Your task to perform on an android device: toggle notification dots Image 0: 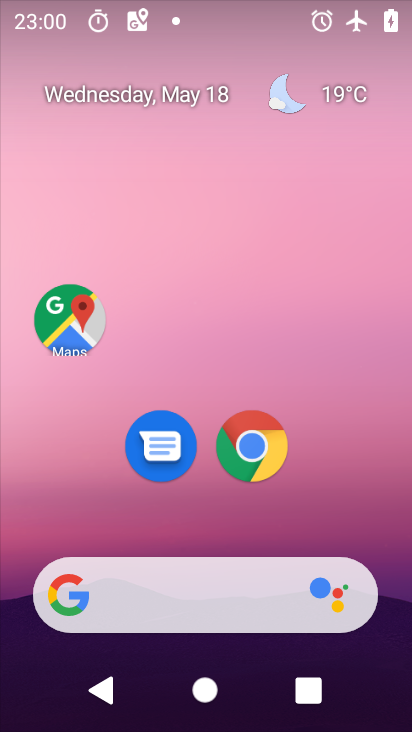
Step 0: drag from (190, 584) to (319, 74)
Your task to perform on an android device: toggle notification dots Image 1: 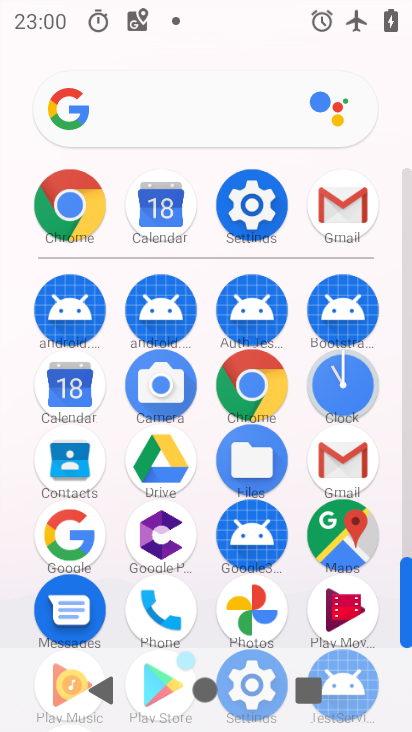
Step 1: click (271, 211)
Your task to perform on an android device: toggle notification dots Image 2: 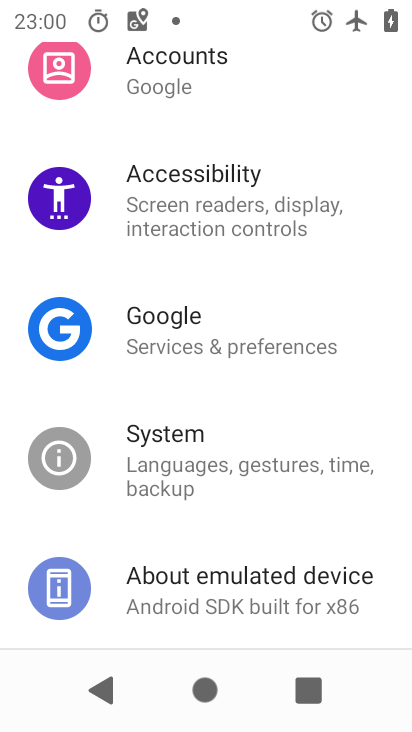
Step 2: drag from (321, 117) to (269, 573)
Your task to perform on an android device: toggle notification dots Image 3: 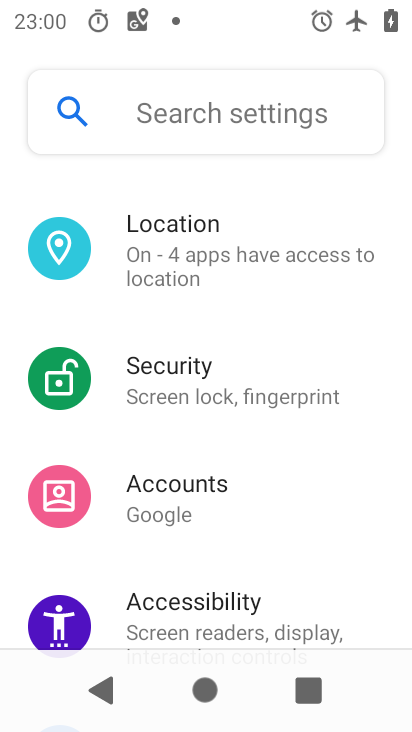
Step 3: drag from (307, 206) to (267, 643)
Your task to perform on an android device: toggle notification dots Image 4: 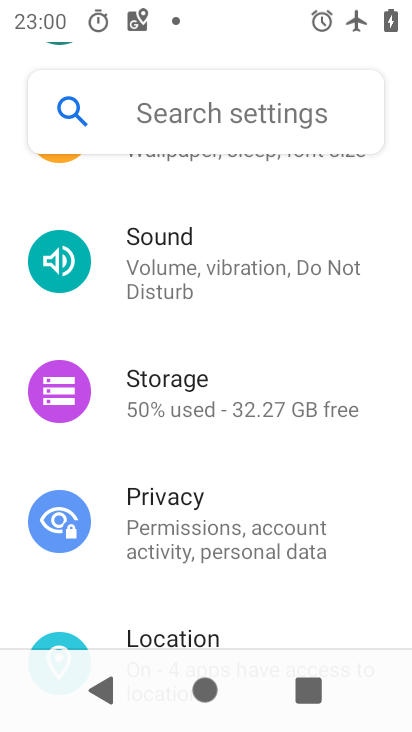
Step 4: drag from (292, 196) to (289, 618)
Your task to perform on an android device: toggle notification dots Image 5: 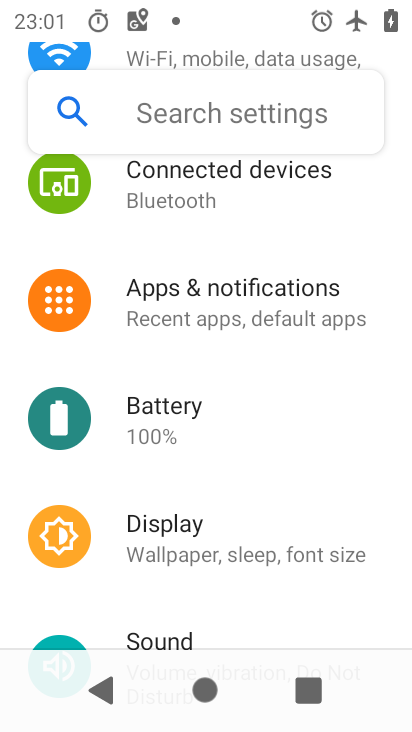
Step 5: click (264, 302)
Your task to perform on an android device: toggle notification dots Image 6: 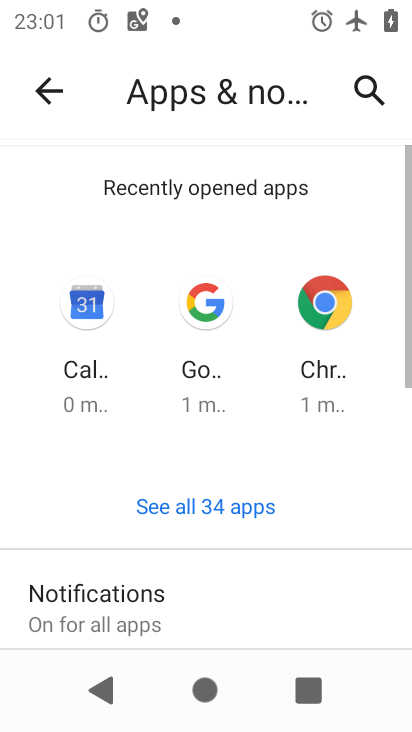
Step 6: click (142, 608)
Your task to perform on an android device: toggle notification dots Image 7: 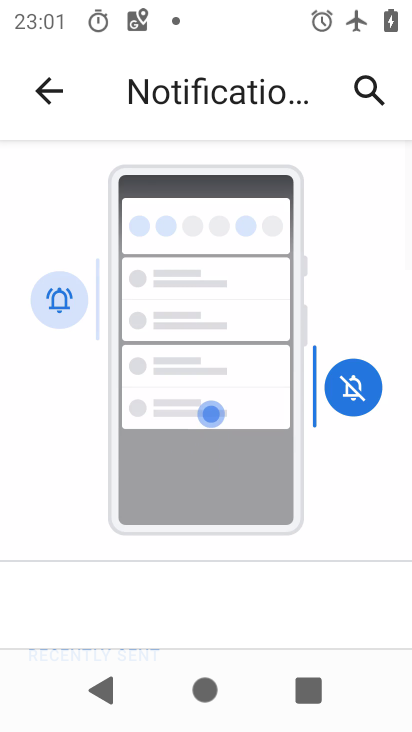
Step 7: drag from (247, 602) to (355, 179)
Your task to perform on an android device: toggle notification dots Image 8: 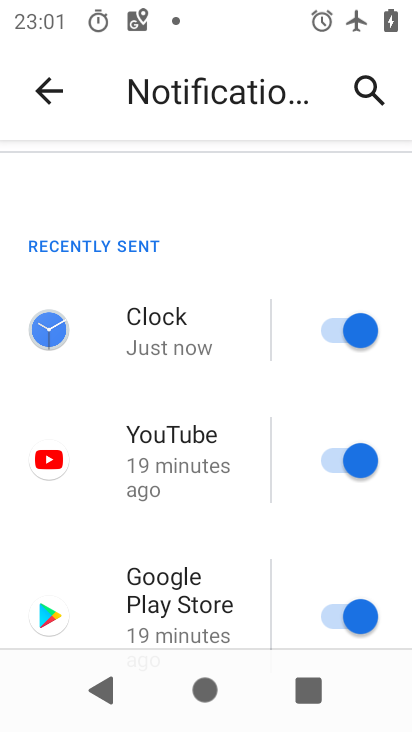
Step 8: drag from (178, 626) to (330, 158)
Your task to perform on an android device: toggle notification dots Image 9: 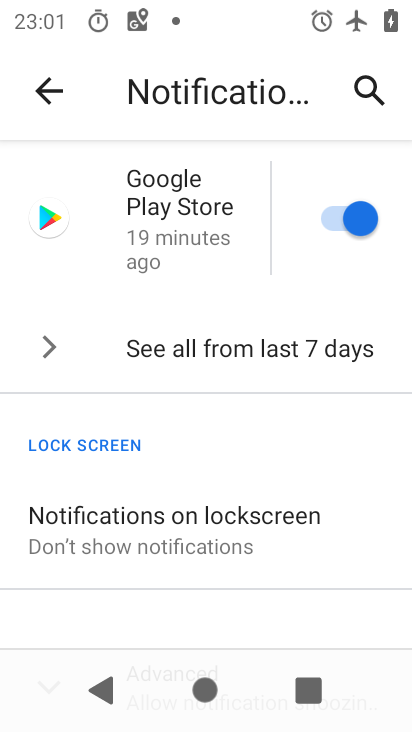
Step 9: drag from (221, 545) to (316, 217)
Your task to perform on an android device: toggle notification dots Image 10: 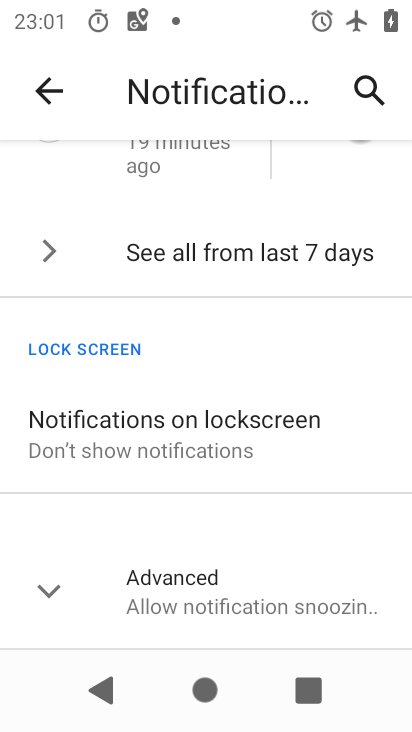
Step 10: click (175, 597)
Your task to perform on an android device: toggle notification dots Image 11: 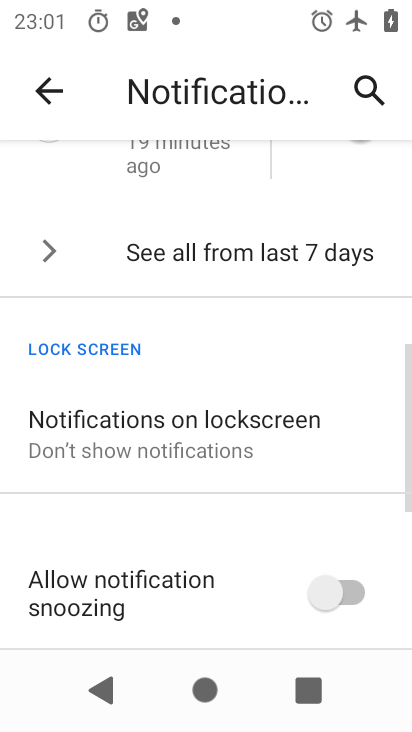
Step 11: drag from (203, 617) to (328, 141)
Your task to perform on an android device: toggle notification dots Image 12: 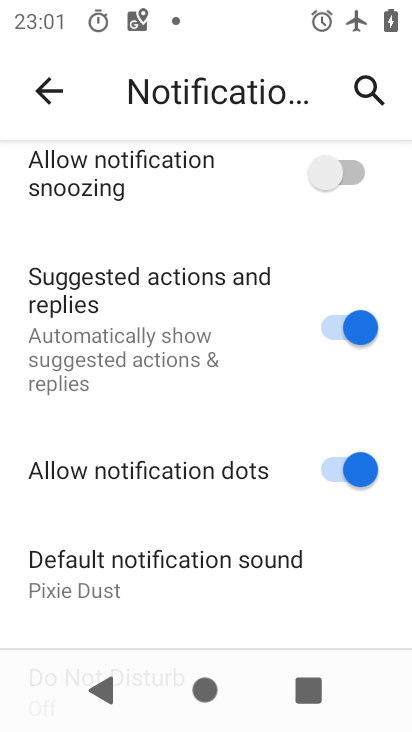
Step 12: click (338, 470)
Your task to perform on an android device: toggle notification dots Image 13: 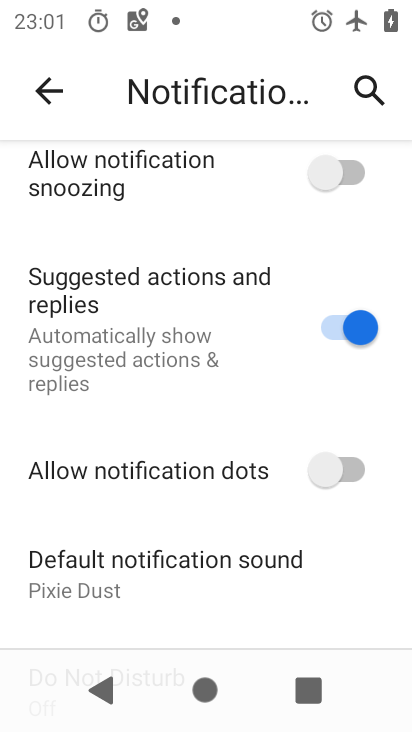
Step 13: task complete